Your task to perform on an android device: Check the news Image 0: 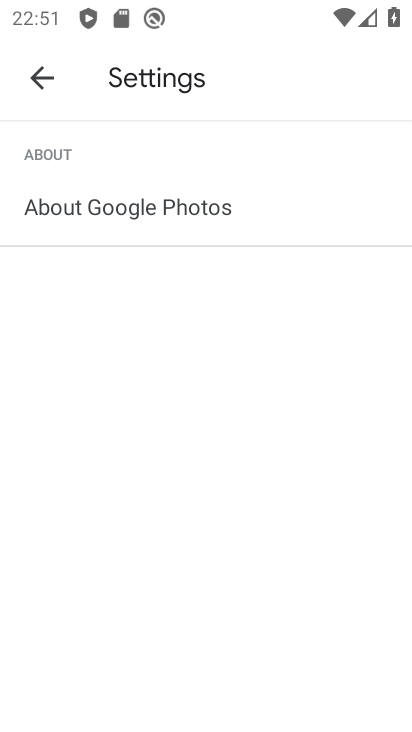
Step 0: press home button
Your task to perform on an android device: Check the news Image 1: 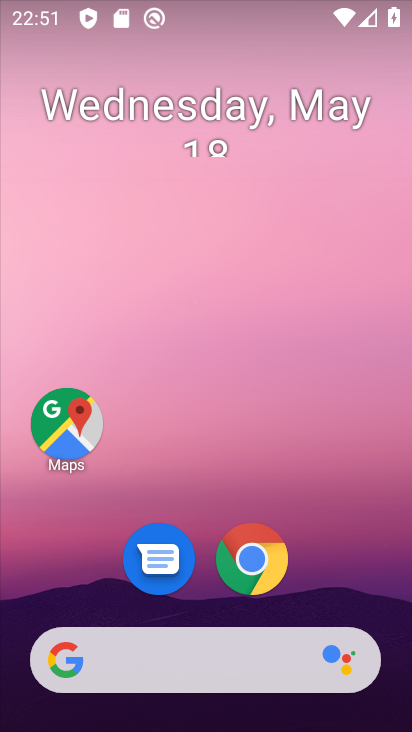
Step 1: click (280, 167)
Your task to perform on an android device: Check the news Image 2: 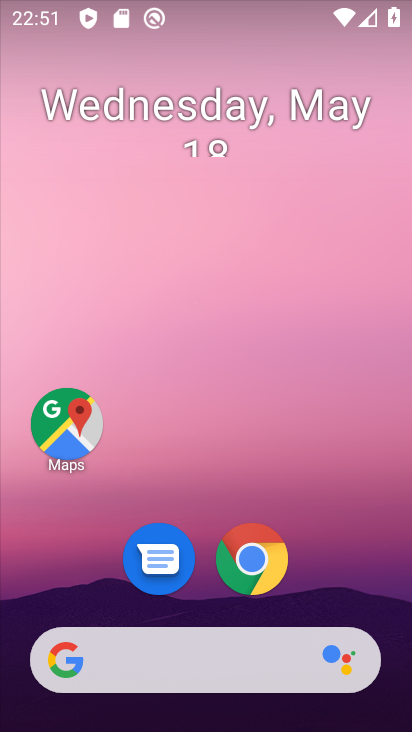
Step 2: drag from (291, 600) to (270, 128)
Your task to perform on an android device: Check the news Image 3: 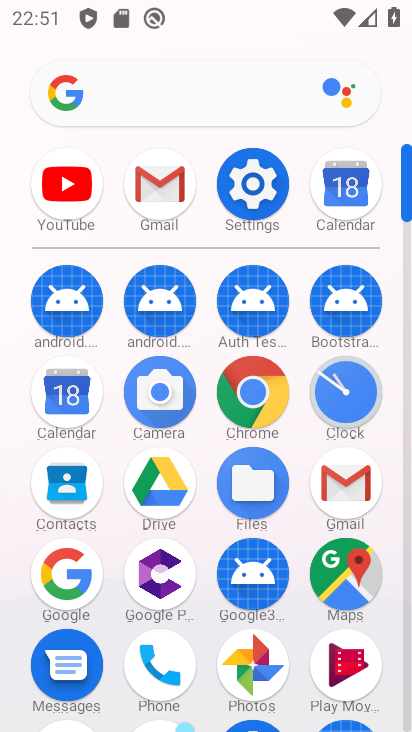
Step 3: click (52, 587)
Your task to perform on an android device: Check the news Image 4: 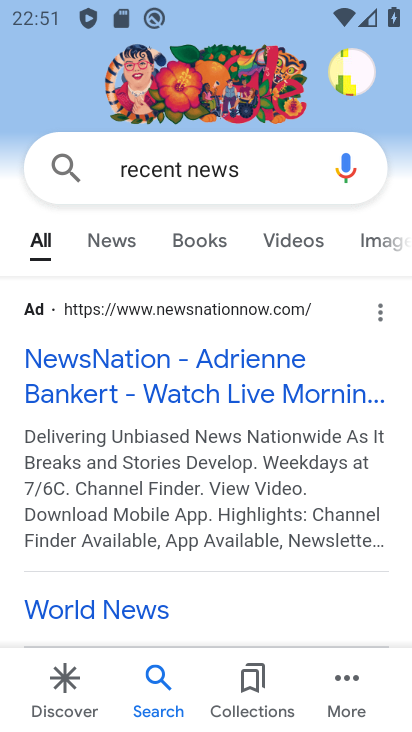
Step 4: click (263, 185)
Your task to perform on an android device: Check the news Image 5: 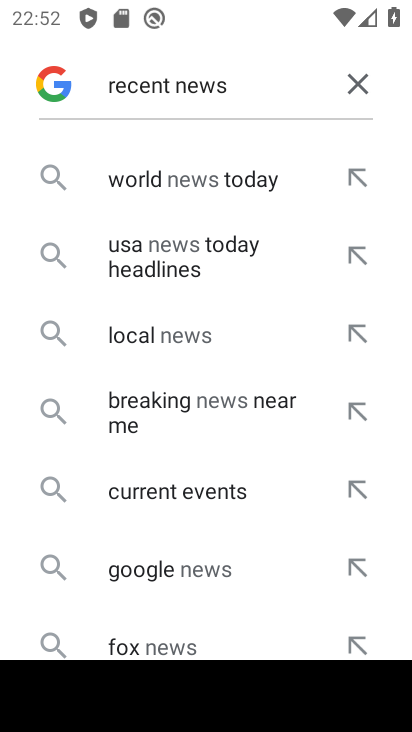
Step 5: click (358, 103)
Your task to perform on an android device: Check the news Image 6: 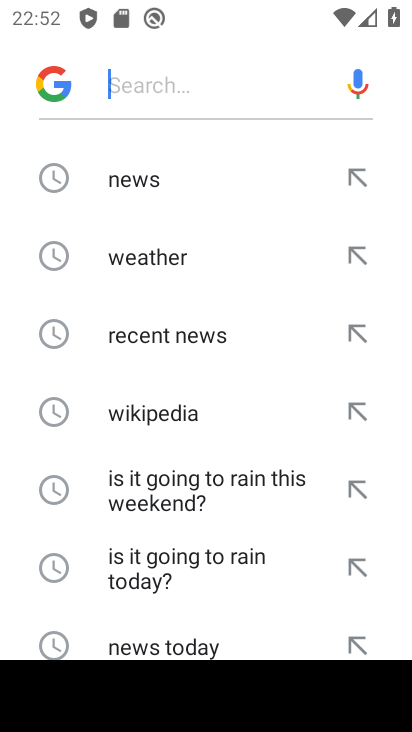
Step 6: click (134, 186)
Your task to perform on an android device: Check the news Image 7: 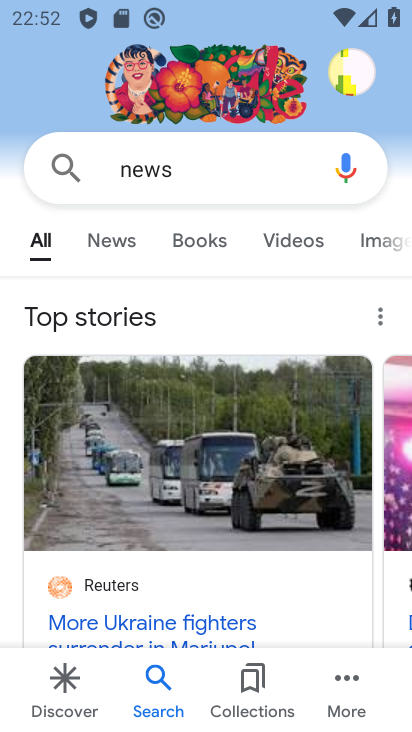
Step 7: task complete